Your task to perform on an android device: Open Youtube and go to "Your channel" Image 0: 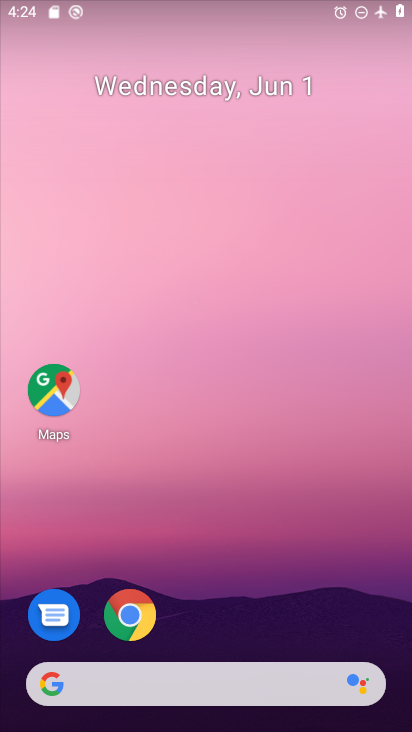
Step 0: press home button
Your task to perform on an android device: Open Youtube and go to "Your channel" Image 1: 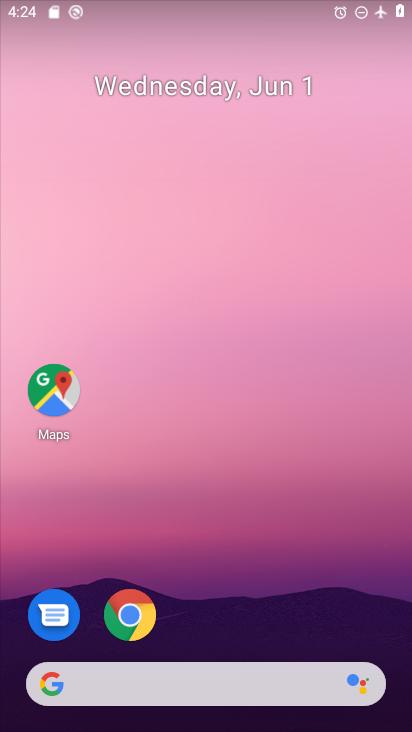
Step 1: drag from (236, 633) to (252, 135)
Your task to perform on an android device: Open Youtube and go to "Your channel" Image 2: 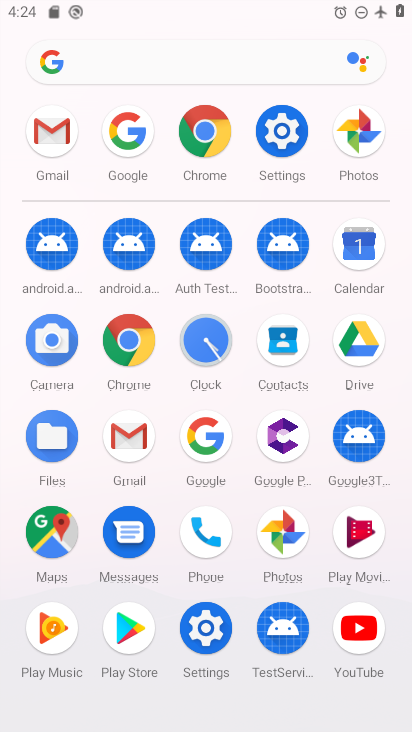
Step 2: click (360, 625)
Your task to perform on an android device: Open Youtube and go to "Your channel" Image 3: 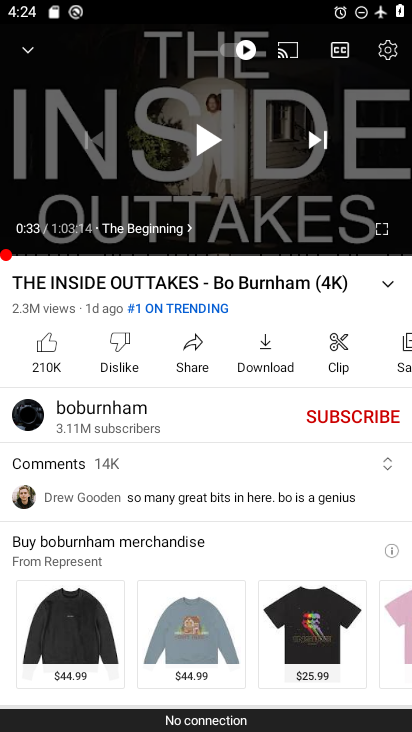
Step 3: press back button
Your task to perform on an android device: Open Youtube and go to "Your channel" Image 4: 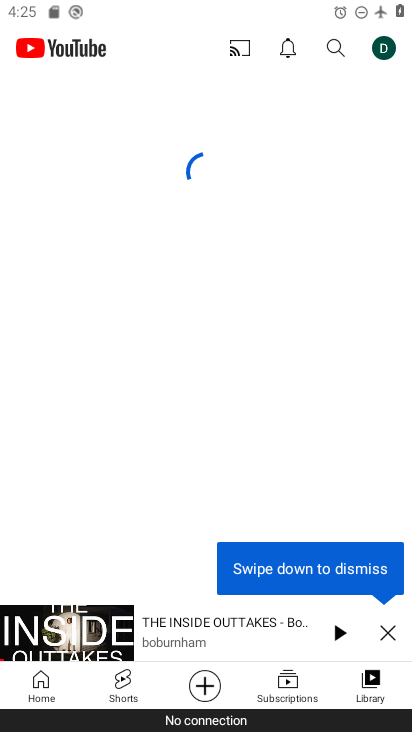
Step 4: click (380, 39)
Your task to perform on an android device: Open Youtube and go to "Your channel" Image 5: 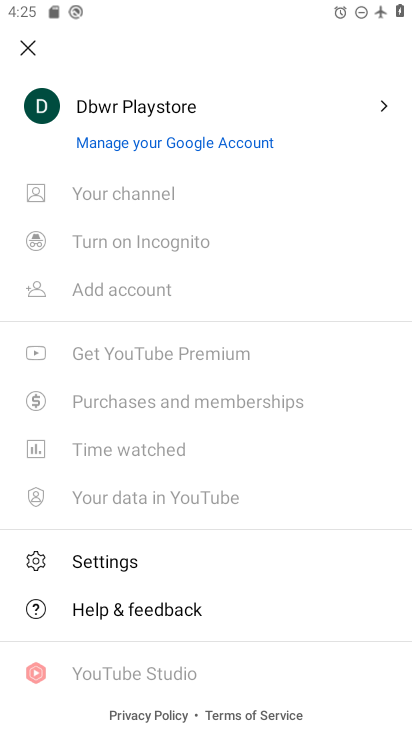
Step 5: click (172, 196)
Your task to perform on an android device: Open Youtube and go to "Your channel" Image 6: 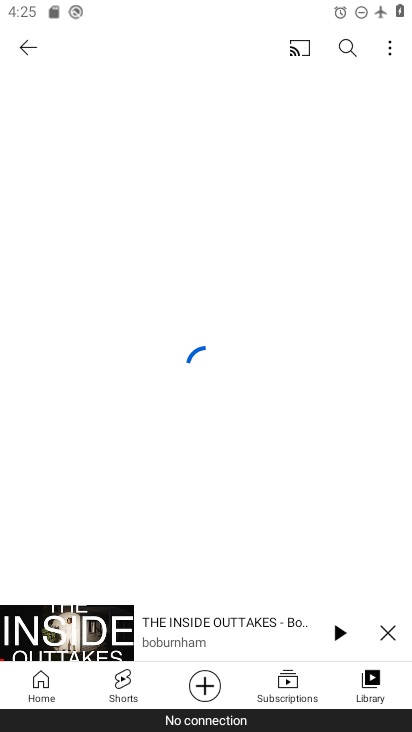
Step 6: task complete